Your task to perform on an android device: check the backup settings in the google photos Image 0: 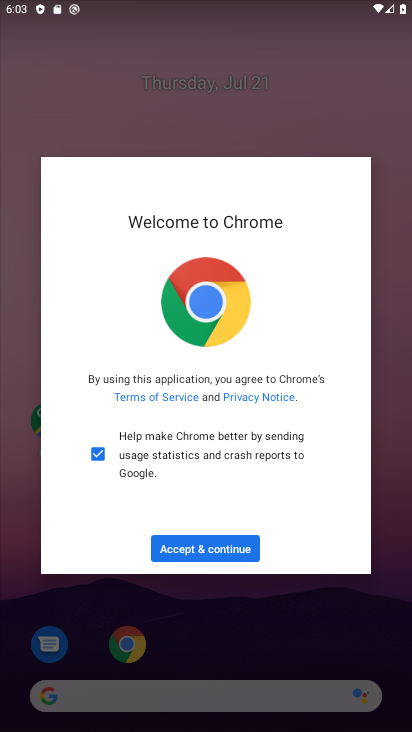
Step 0: press home button
Your task to perform on an android device: check the backup settings in the google photos Image 1: 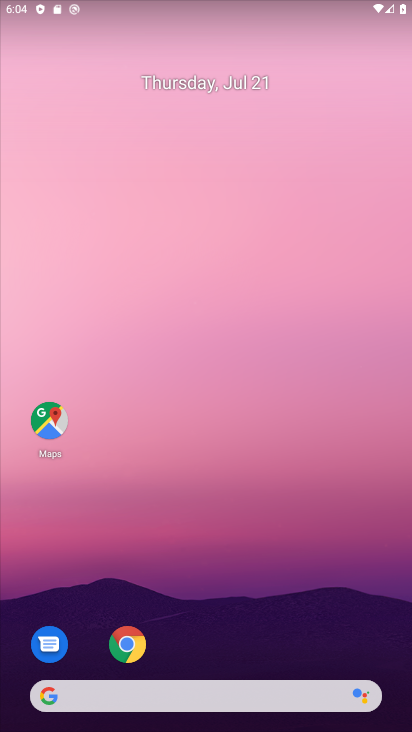
Step 1: drag from (101, 551) to (107, 102)
Your task to perform on an android device: check the backup settings in the google photos Image 2: 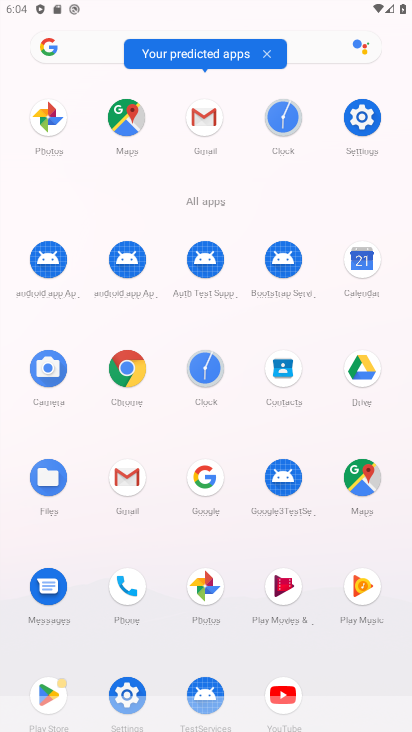
Step 2: click (214, 587)
Your task to perform on an android device: check the backup settings in the google photos Image 3: 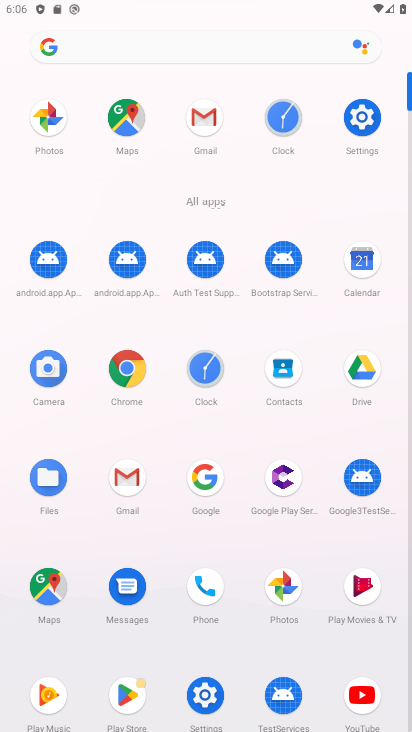
Step 3: click (269, 581)
Your task to perform on an android device: check the backup settings in the google photos Image 4: 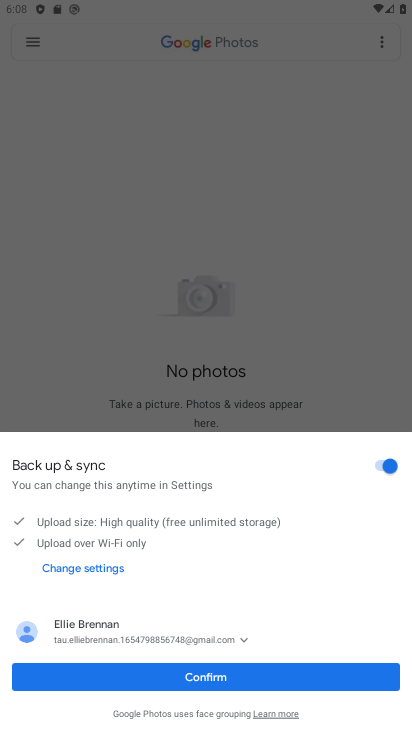
Step 4: click (195, 668)
Your task to perform on an android device: check the backup settings in the google photos Image 5: 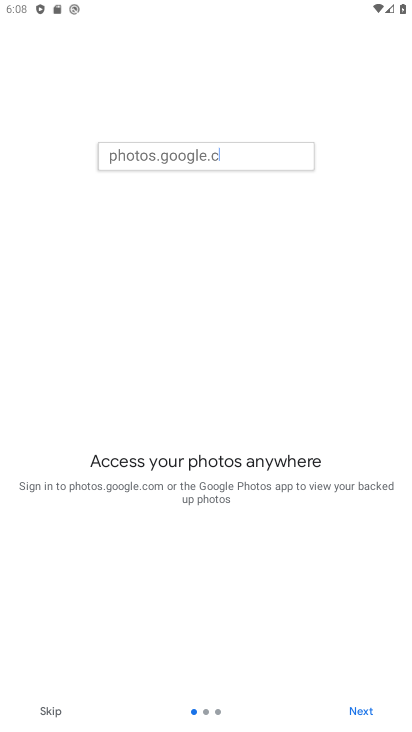
Step 5: click (363, 710)
Your task to perform on an android device: check the backup settings in the google photos Image 6: 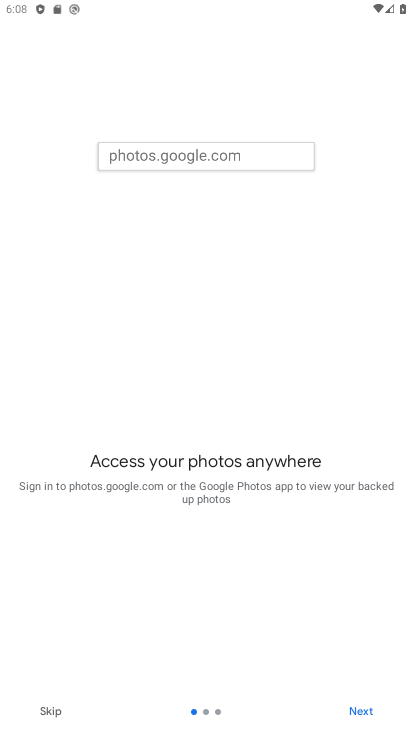
Step 6: click (363, 710)
Your task to perform on an android device: check the backup settings in the google photos Image 7: 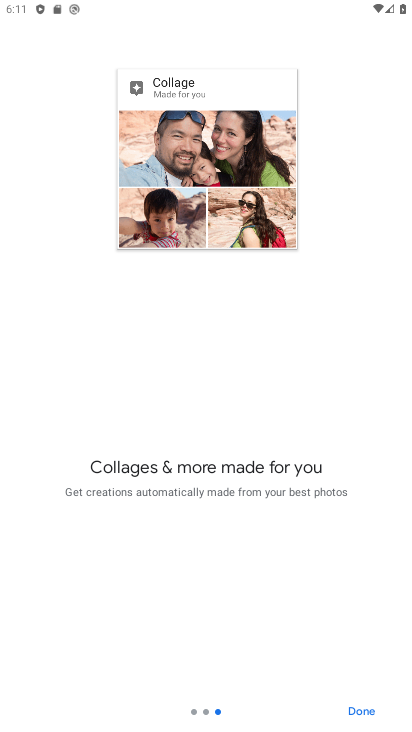
Step 7: click (368, 705)
Your task to perform on an android device: check the backup settings in the google photos Image 8: 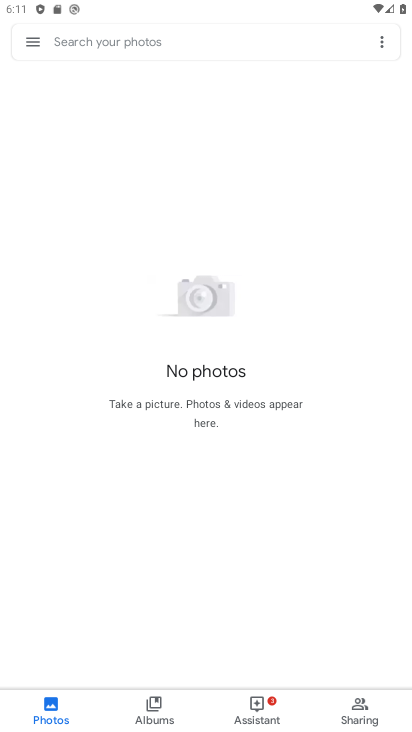
Step 8: click (37, 36)
Your task to perform on an android device: check the backup settings in the google photos Image 9: 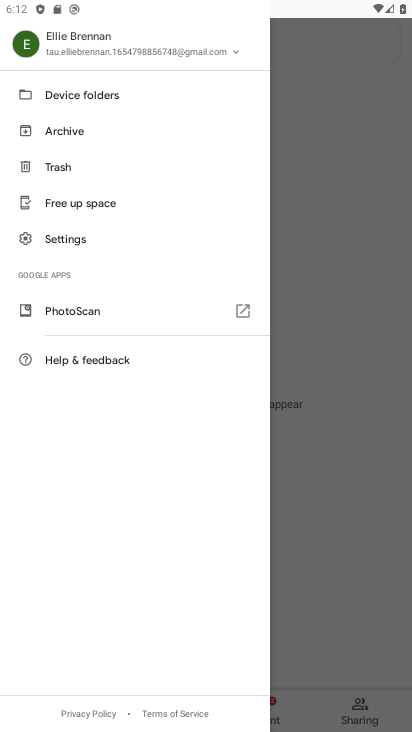
Step 9: click (124, 53)
Your task to perform on an android device: check the backup settings in the google photos Image 10: 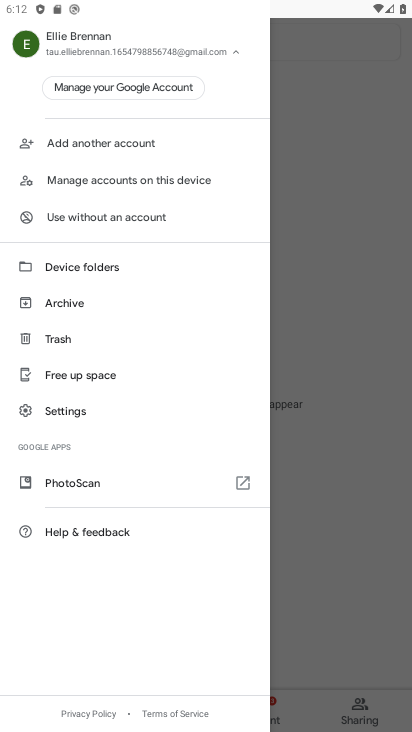
Step 10: click (51, 408)
Your task to perform on an android device: check the backup settings in the google photos Image 11: 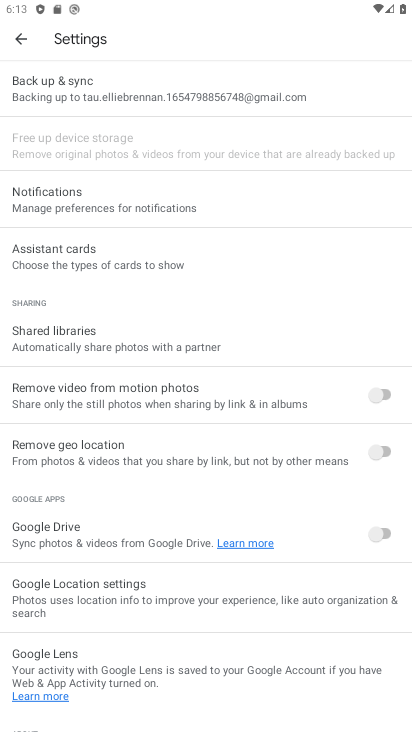
Step 11: task complete